Your task to perform on an android device: open a new tab in the chrome app Image 0: 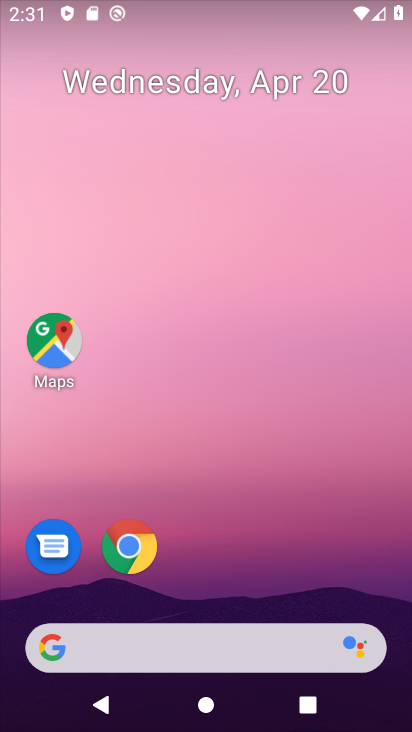
Step 0: click (132, 535)
Your task to perform on an android device: open a new tab in the chrome app Image 1: 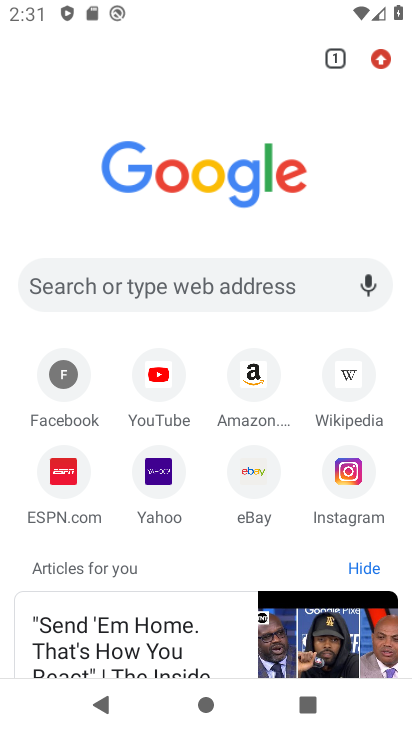
Step 1: task complete